Your task to perform on an android device: check data usage Image 0: 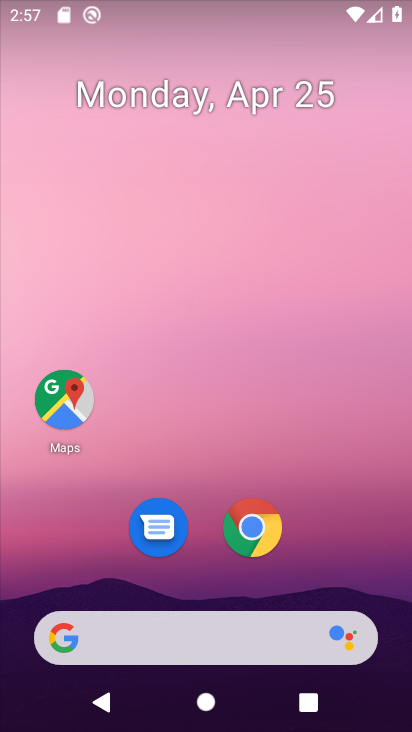
Step 0: drag from (394, 631) to (363, 241)
Your task to perform on an android device: check data usage Image 1: 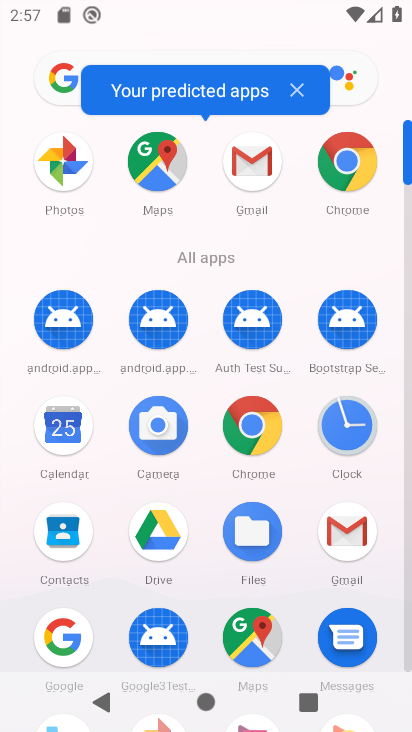
Step 1: click (405, 657)
Your task to perform on an android device: check data usage Image 2: 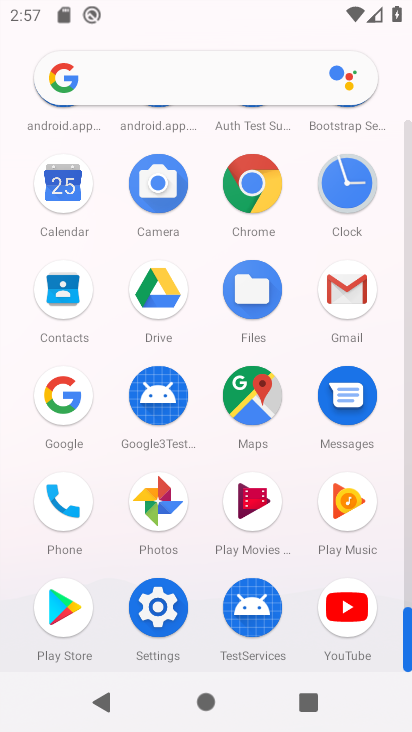
Step 2: click (155, 608)
Your task to perform on an android device: check data usage Image 3: 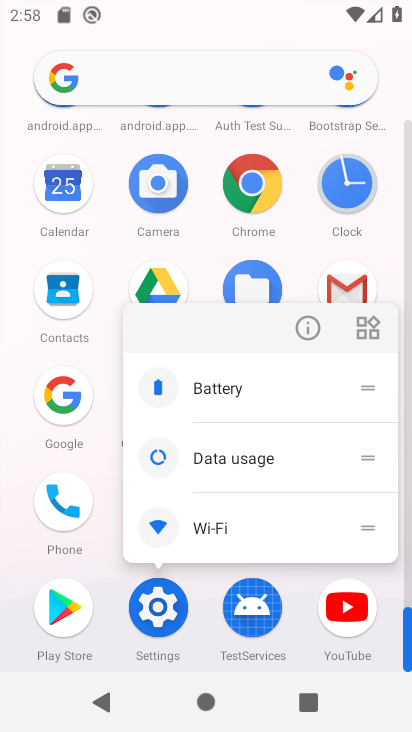
Step 3: click (155, 605)
Your task to perform on an android device: check data usage Image 4: 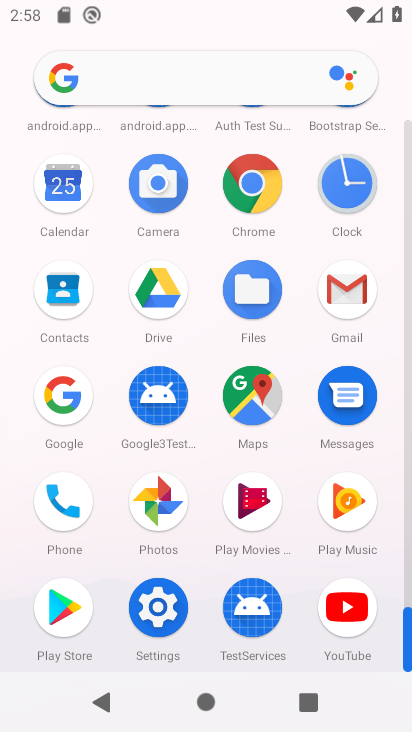
Step 4: click (155, 605)
Your task to perform on an android device: check data usage Image 5: 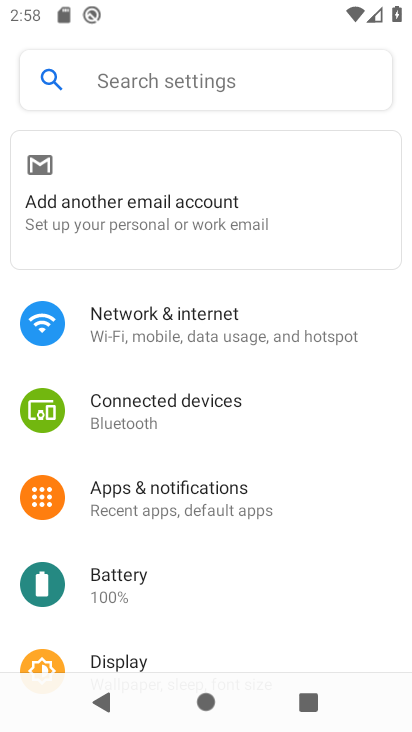
Step 5: click (143, 329)
Your task to perform on an android device: check data usage Image 6: 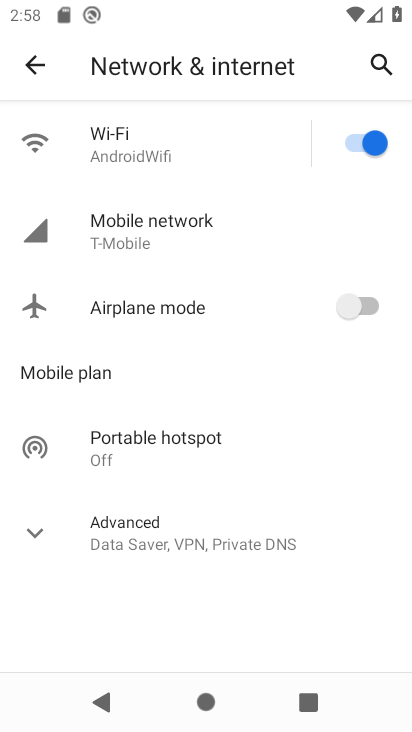
Step 6: click (29, 529)
Your task to perform on an android device: check data usage Image 7: 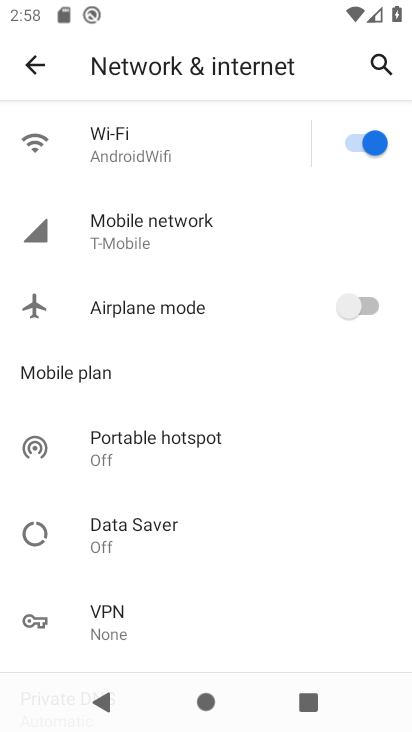
Step 7: drag from (329, 533) to (321, 319)
Your task to perform on an android device: check data usage Image 8: 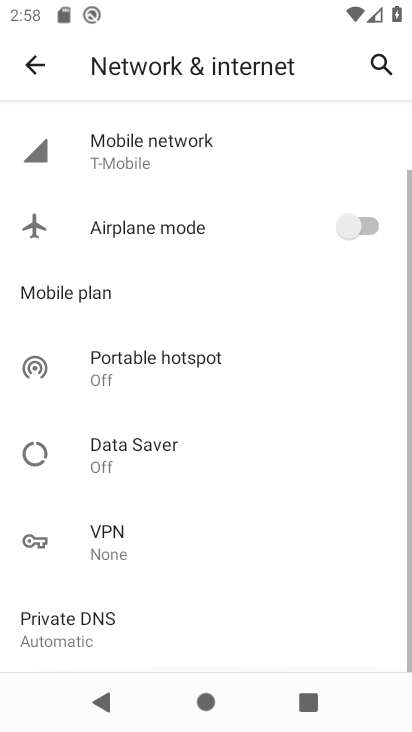
Step 8: drag from (327, 399) to (293, 671)
Your task to perform on an android device: check data usage Image 9: 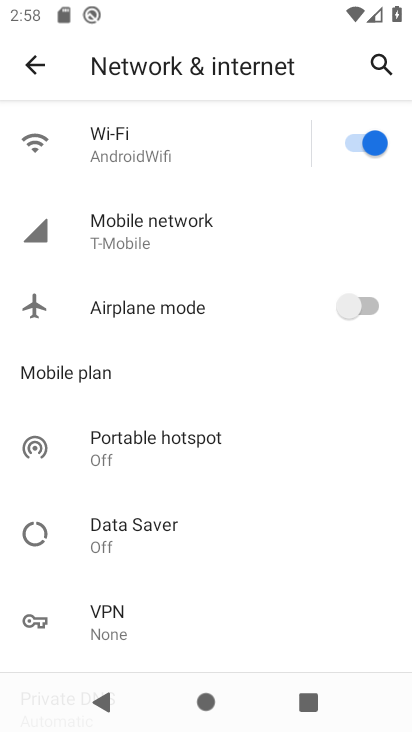
Step 9: click (135, 224)
Your task to perform on an android device: check data usage Image 10: 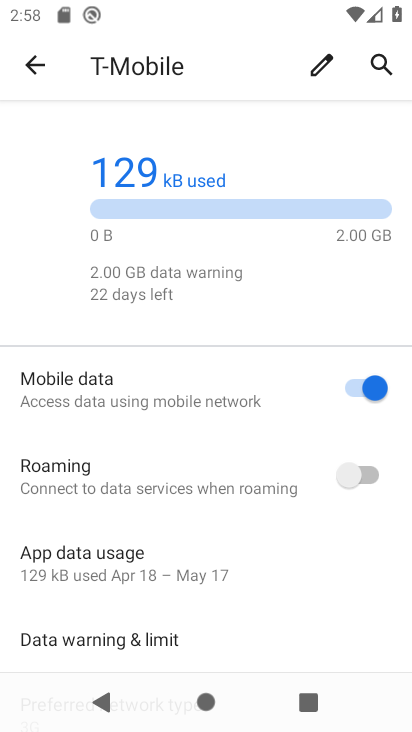
Step 10: task complete